Your task to perform on an android device: Go to display settings Image 0: 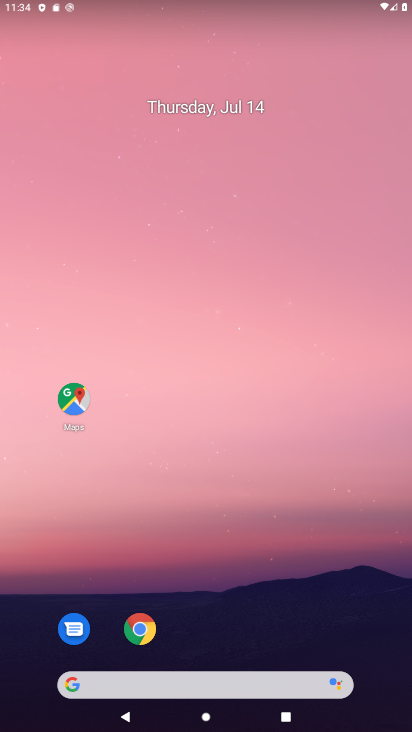
Step 0: drag from (225, 519) to (210, 173)
Your task to perform on an android device: Go to display settings Image 1: 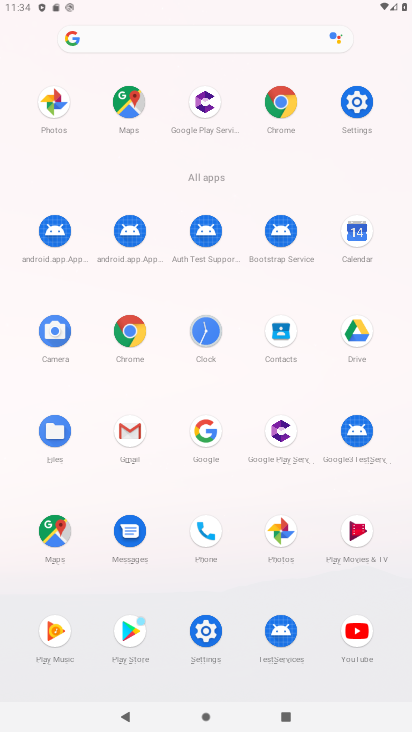
Step 1: click (351, 95)
Your task to perform on an android device: Go to display settings Image 2: 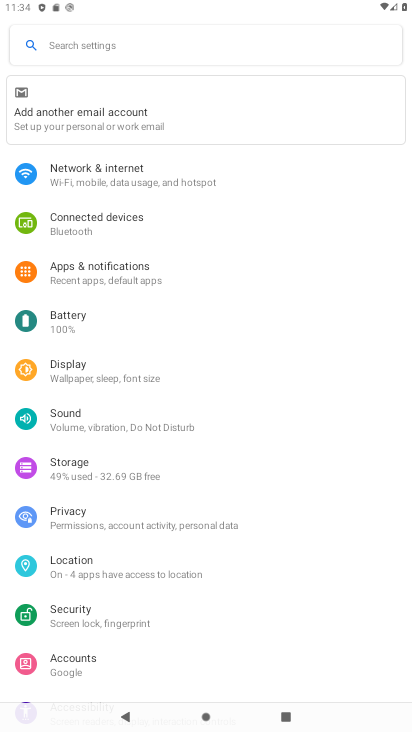
Step 2: click (86, 379)
Your task to perform on an android device: Go to display settings Image 3: 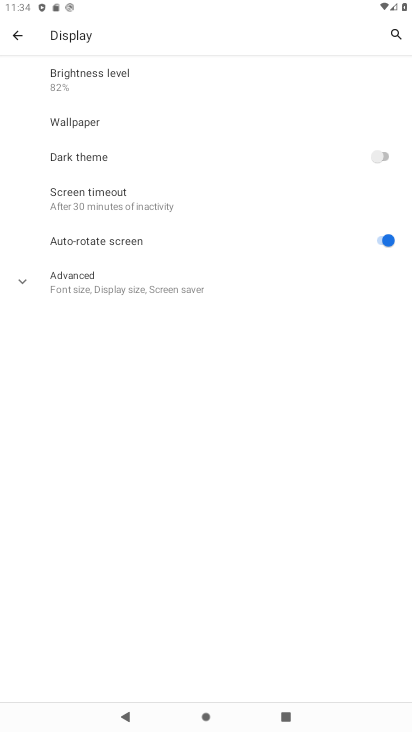
Step 3: task complete